Your task to perform on an android device: Turn off the flashlight Image 0: 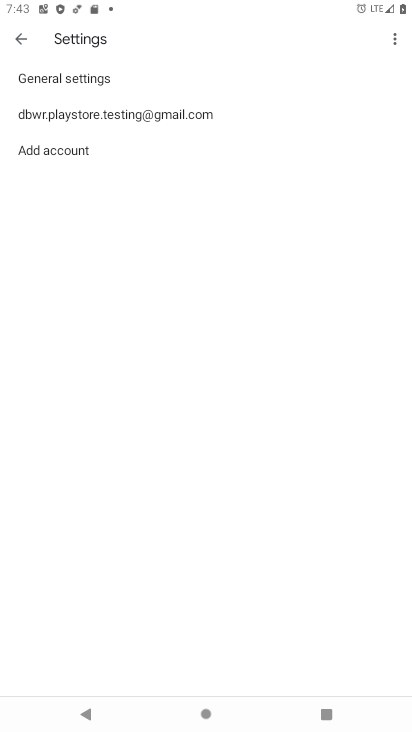
Step 0: press home button
Your task to perform on an android device: Turn off the flashlight Image 1: 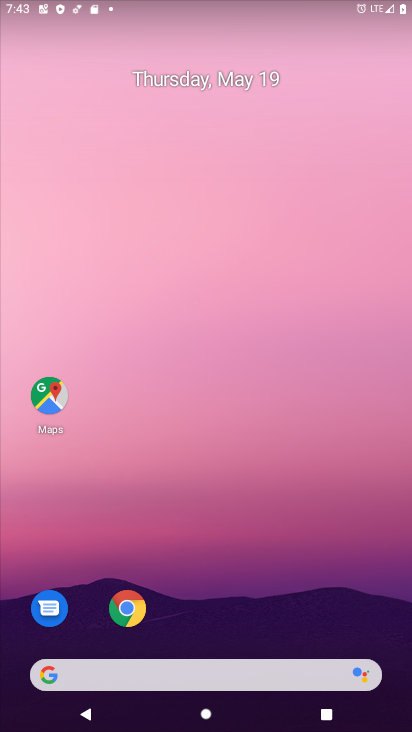
Step 1: drag from (407, 667) to (399, 209)
Your task to perform on an android device: Turn off the flashlight Image 2: 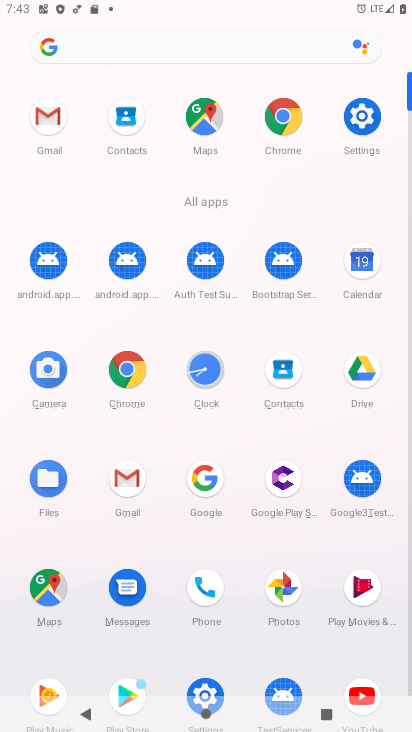
Step 2: click (351, 126)
Your task to perform on an android device: Turn off the flashlight Image 3: 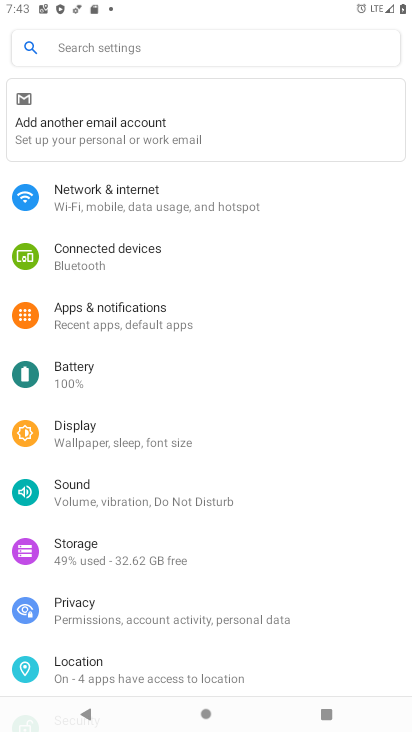
Step 3: click (88, 346)
Your task to perform on an android device: Turn off the flashlight Image 4: 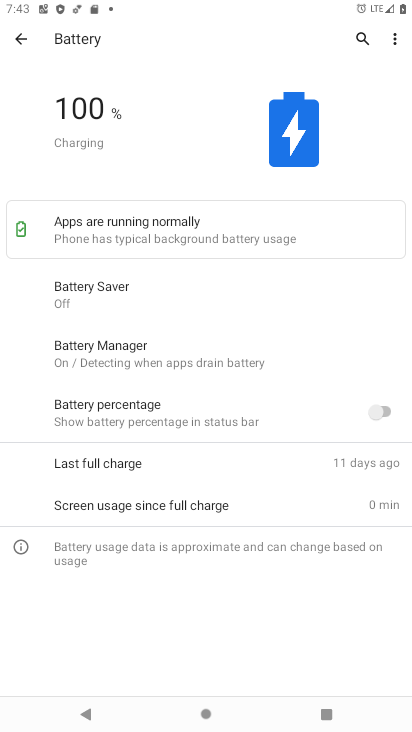
Step 4: task complete